Your task to perform on an android device: What's the weather going to be this weekend? Image 0: 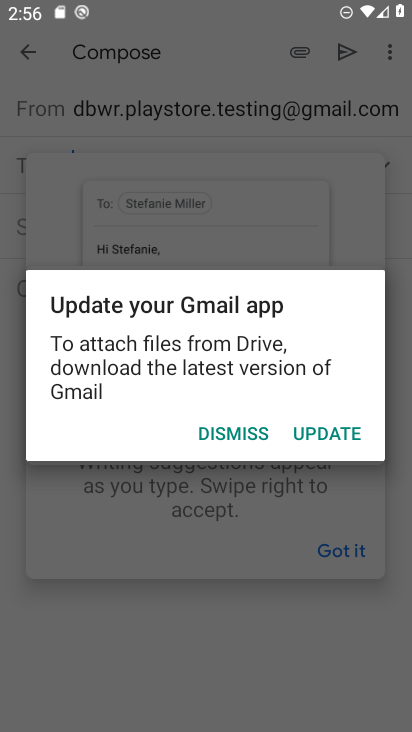
Step 0: press home button
Your task to perform on an android device: What's the weather going to be this weekend? Image 1: 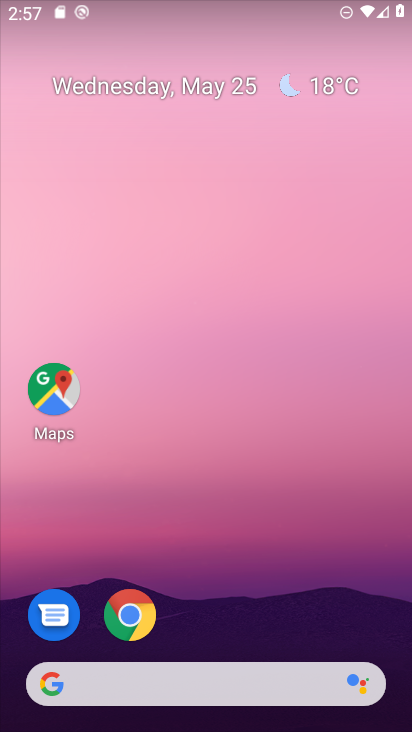
Step 1: click (197, 681)
Your task to perform on an android device: What's the weather going to be this weekend? Image 2: 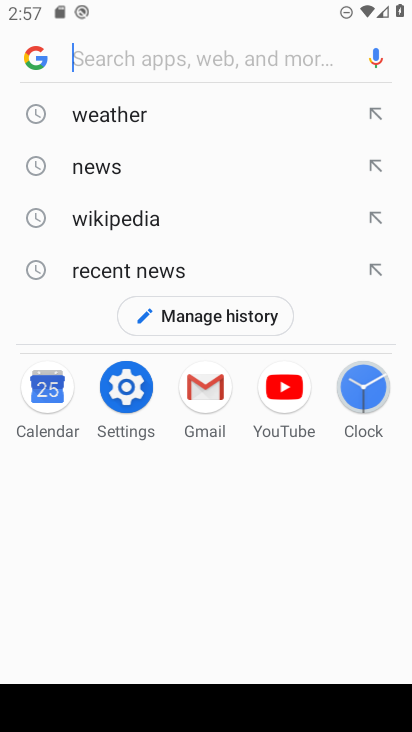
Step 2: click (97, 104)
Your task to perform on an android device: What's the weather going to be this weekend? Image 3: 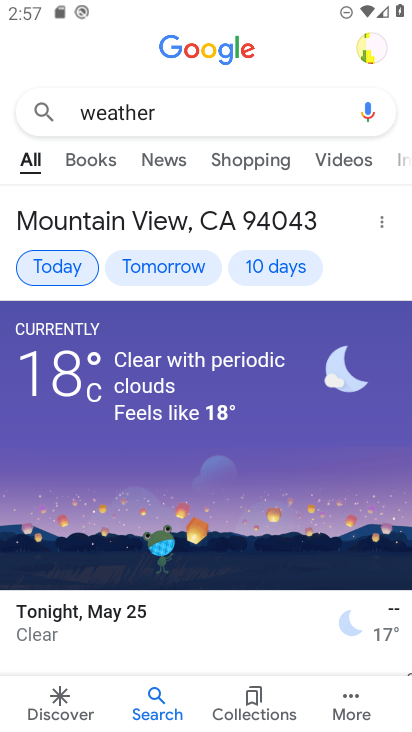
Step 3: click (77, 265)
Your task to perform on an android device: What's the weather going to be this weekend? Image 4: 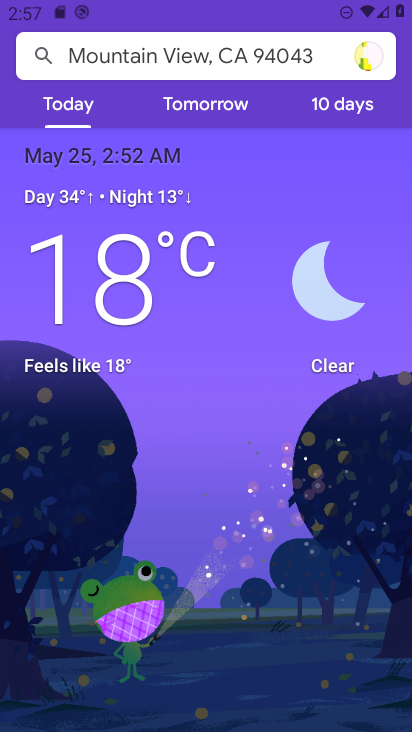
Step 4: click (350, 103)
Your task to perform on an android device: What's the weather going to be this weekend? Image 5: 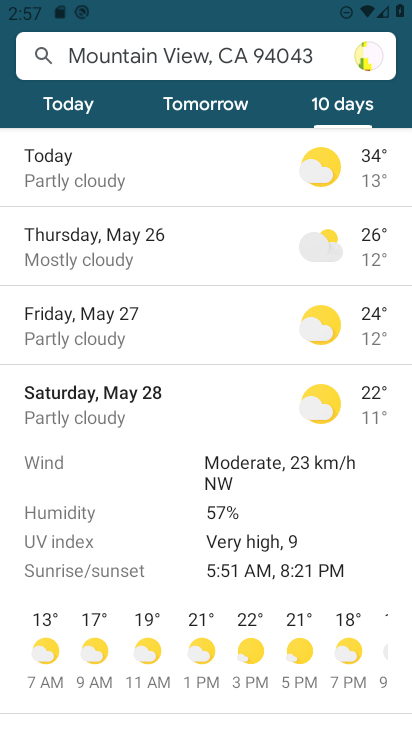
Step 5: task complete